Your task to perform on an android device: Go to sound settings Image 0: 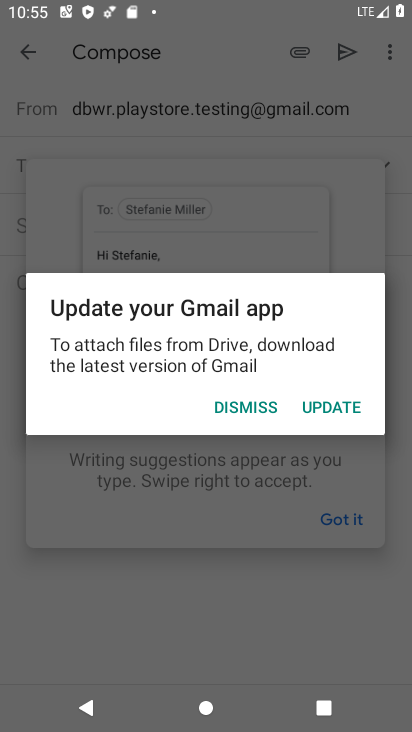
Step 0: click (241, 408)
Your task to perform on an android device: Go to sound settings Image 1: 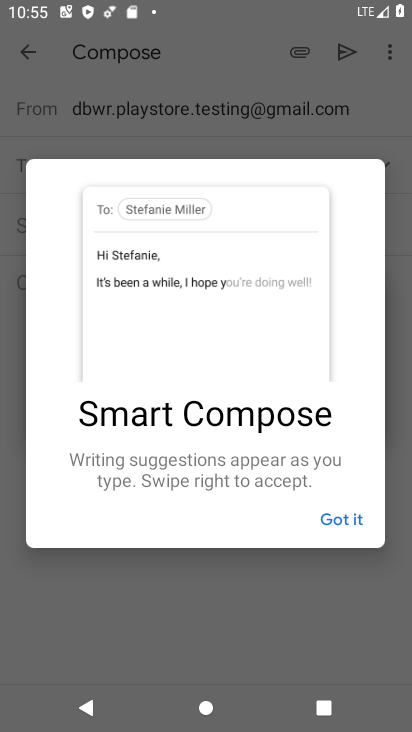
Step 1: click (333, 517)
Your task to perform on an android device: Go to sound settings Image 2: 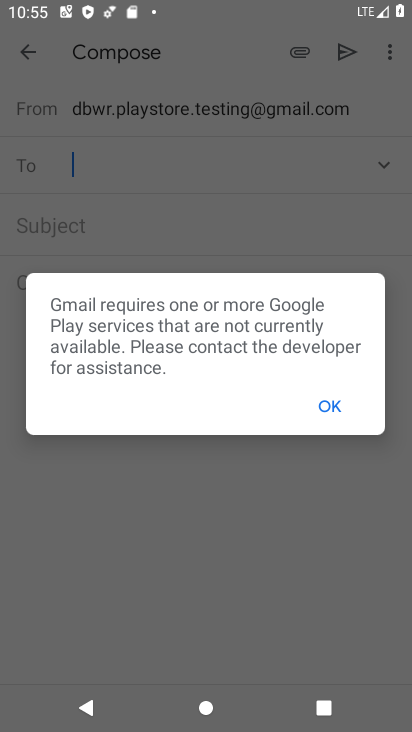
Step 2: click (329, 408)
Your task to perform on an android device: Go to sound settings Image 3: 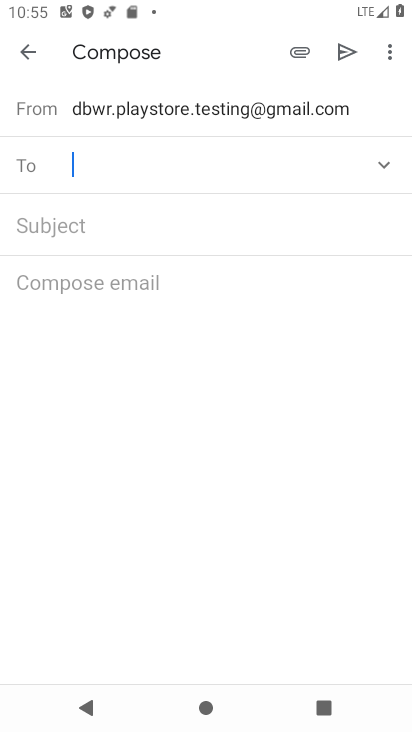
Step 3: press back button
Your task to perform on an android device: Go to sound settings Image 4: 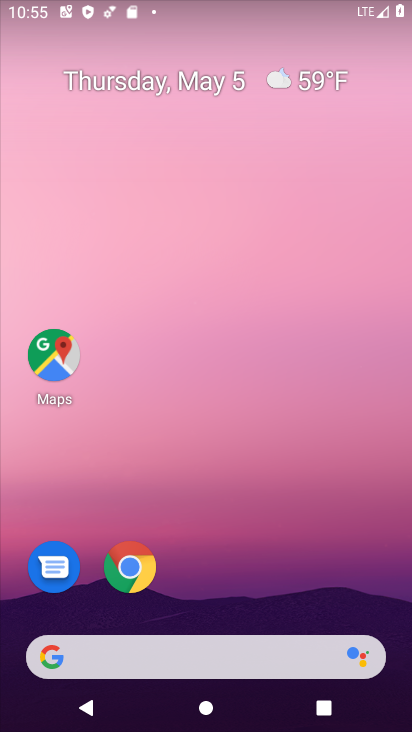
Step 4: drag from (176, 574) to (281, 26)
Your task to perform on an android device: Go to sound settings Image 5: 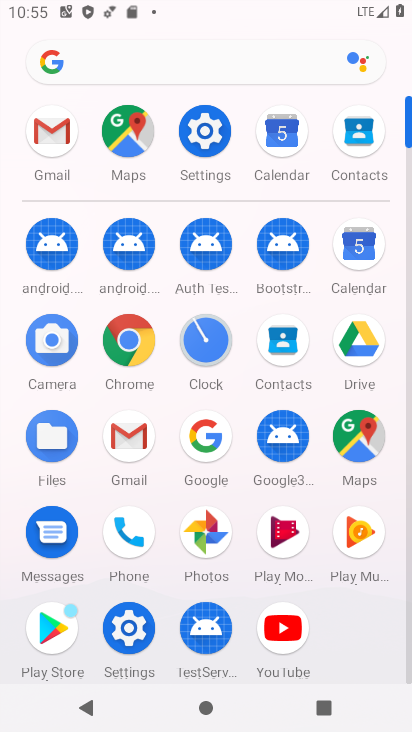
Step 5: click (189, 124)
Your task to perform on an android device: Go to sound settings Image 6: 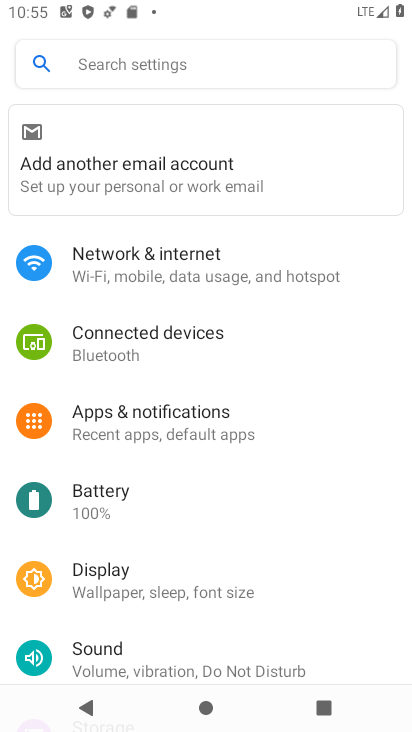
Step 6: click (104, 659)
Your task to perform on an android device: Go to sound settings Image 7: 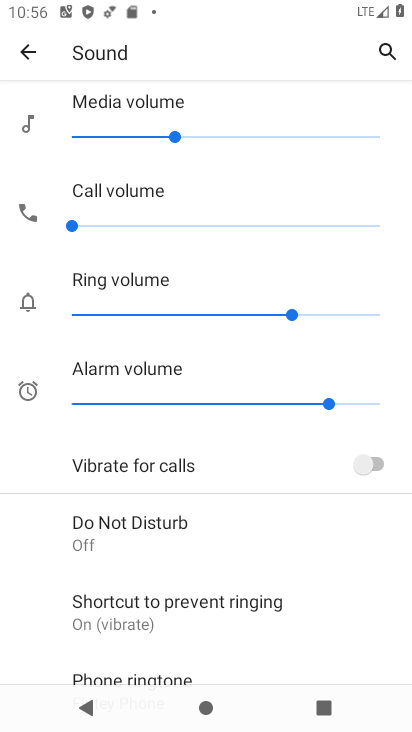
Step 7: task complete